Your task to perform on an android device: When is my next meeting? Image 0: 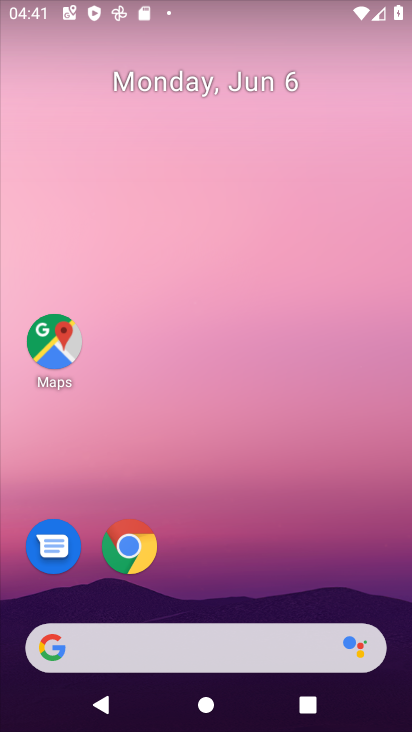
Step 0: drag from (317, 569) to (310, 80)
Your task to perform on an android device: When is my next meeting? Image 1: 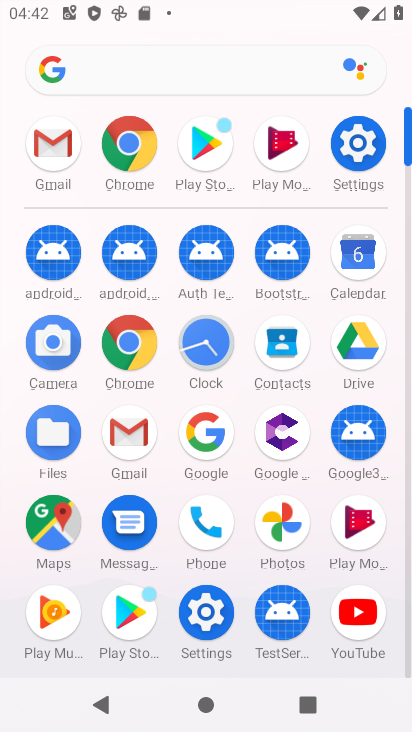
Step 1: click (370, 259)
Your task to perform on an android device: When is my next meeting? Image 2: 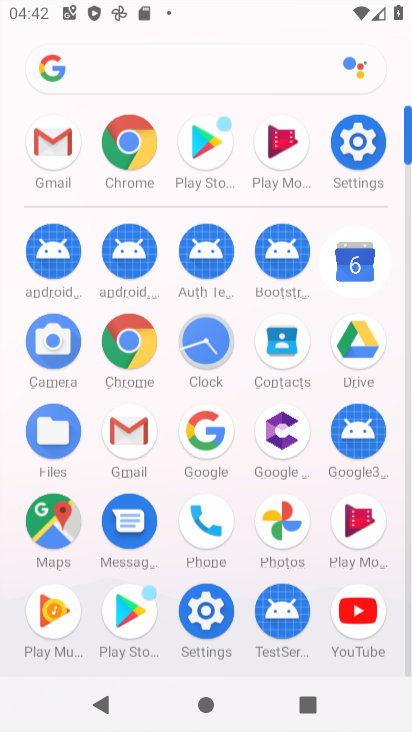
Step 2: task complete